Your task to perform on an android device: Open Wikipedia Image 0: 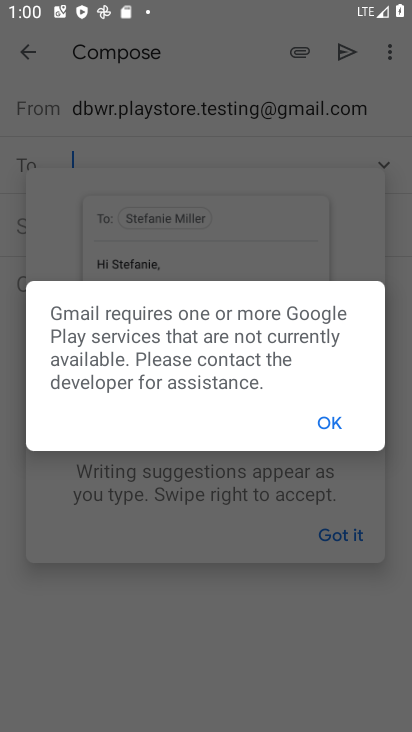
Step 0: press home button
Your task to perform on an android device: Open Wikipedia Image 1: 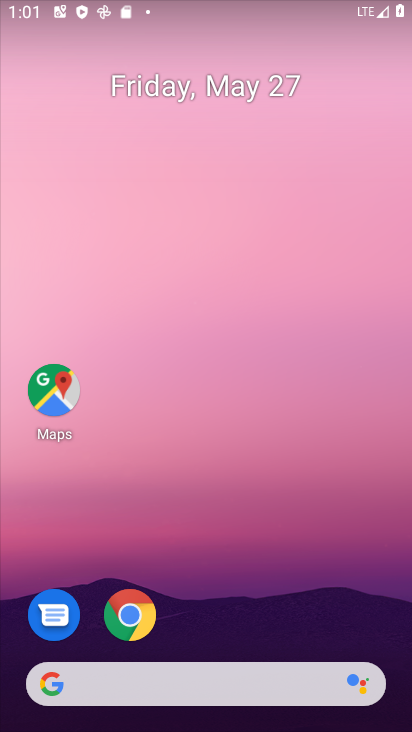
Step 1: drag from (250, 662) to (256, 0)
Your task to perform on an android device: Open Wikipedia Image 2: 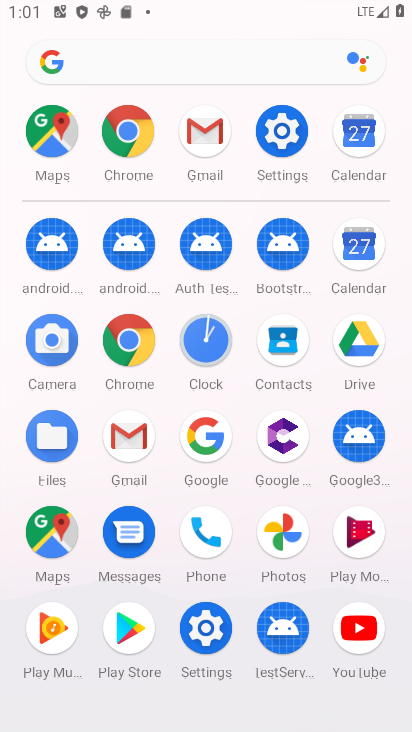
Step 2: click (118, 347)
Your task to perform on an android device: Open Wikipedia Image 3: 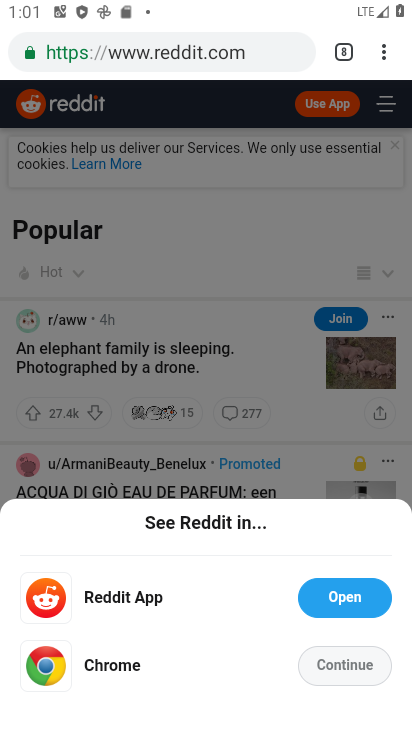
Step 3: click (204, 58)
Your task to perform on an android device: Open Wikipedia Image 4: 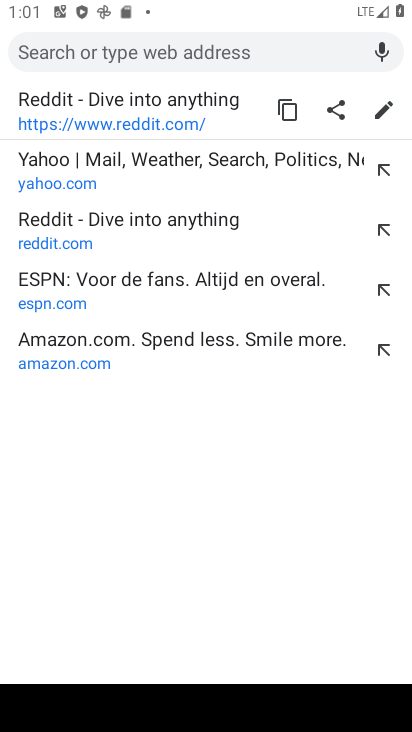
Step 4: type "wikipedia"
Your task to perform on an android device: Open Wikipedia Image 5: 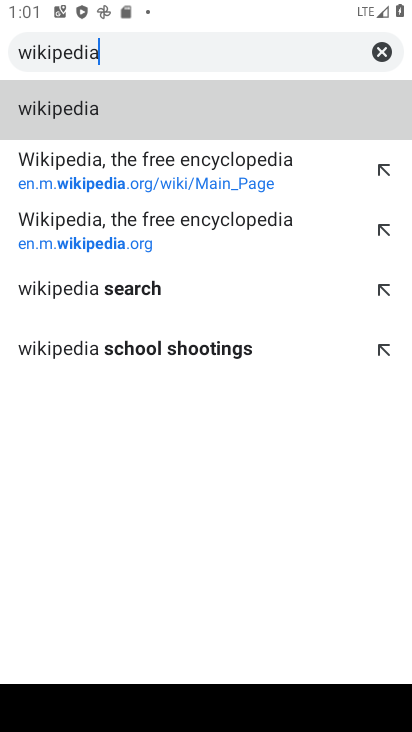
Step 5: click (133, 168)
Your task to perform on an android device: Open Wikipedia Image 6: 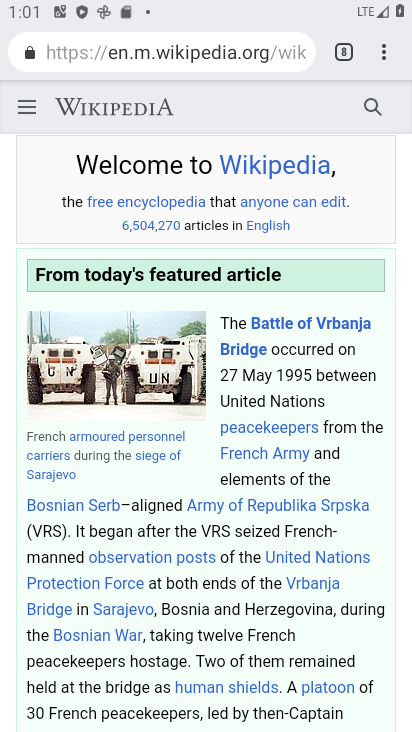
Step 6: task complete